Your task to perform on an android device: Search for seafood restaurants on Google Maps Image 0: 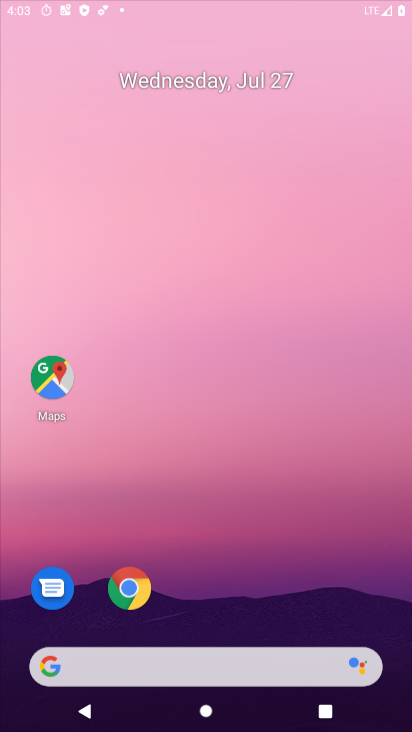
Step 0: press home button
Your task to perform on an android device: Search for seafood restaurants on Google Maps Image 1: 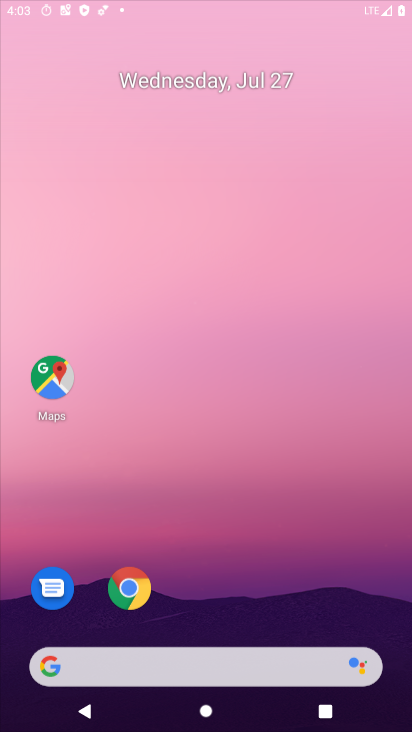
Step 1: click (268, 620)
Your task to perform on an android device: Search for seafood restaurants on Google Maps Image 2: 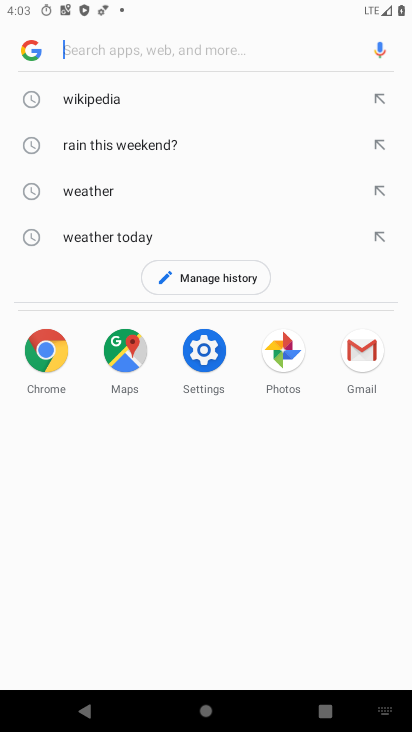
Step 2: press home button
Your task to perform on an android device: Search for seafood restaurants on Google Maps Image 3: 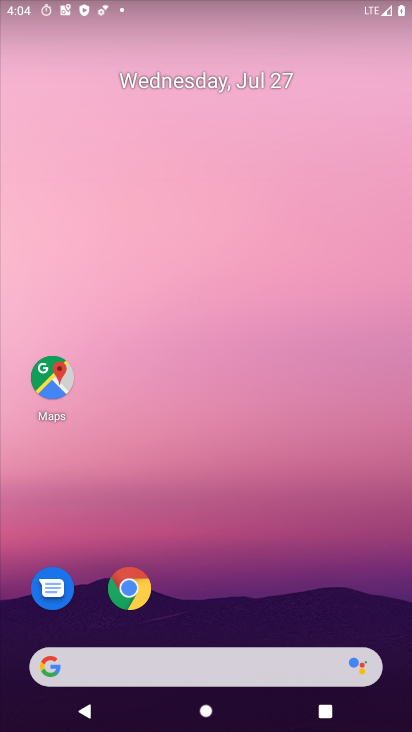
Step 3: drag from (271, 611) to (174, 94)
Your task to perform on an android device: Search for seafood restaurants on Google Maps Image 4: 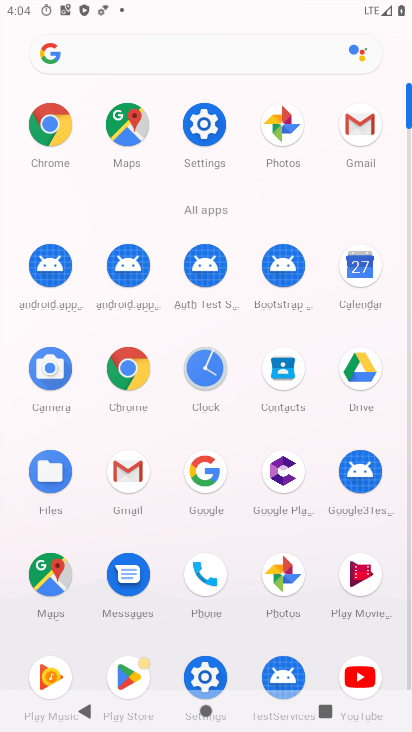
Step 4: click (124, 126)
Your task to perform on an android device: Search for seafood restaurants on Google Maps Image 5: 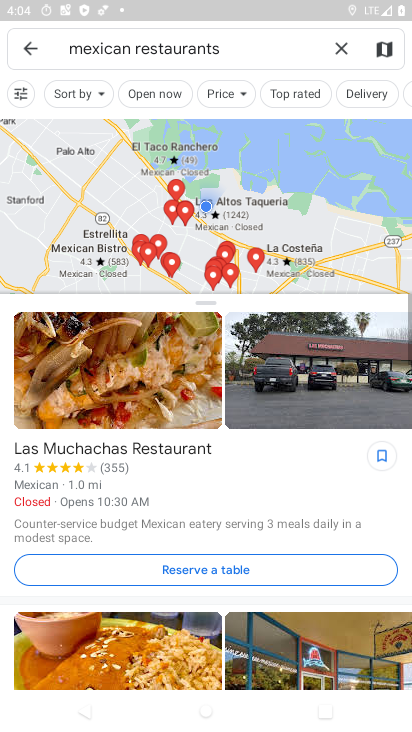
Step 5: click (32, 49)
Your task to perform on an android device: Search for seafood restaurants on Google Maps Image 6: 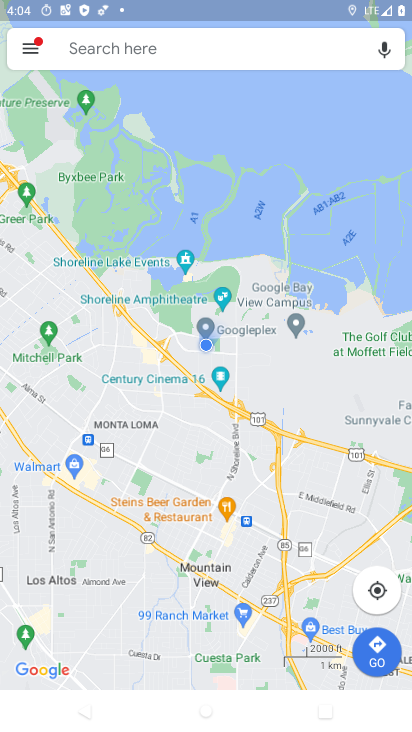
Step 6: click (97, 48)
Your task to perform on an android device: Search for seafood restaurants on Google Maps Image 7: 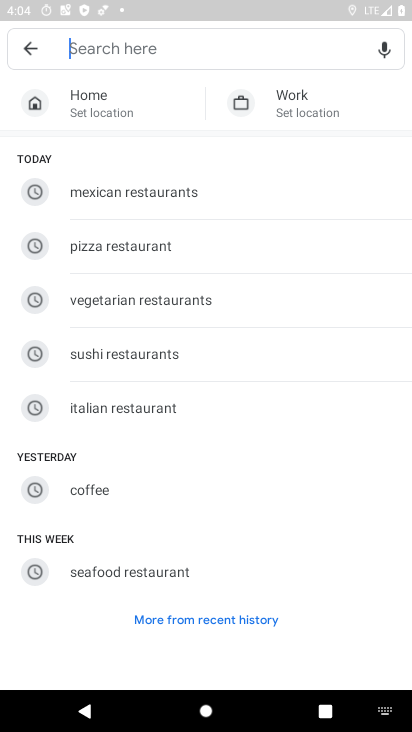
Step 7: click (134, 573)
Your task to perform on an android device: Search for seafood restaurants on Google Maps Image 8: 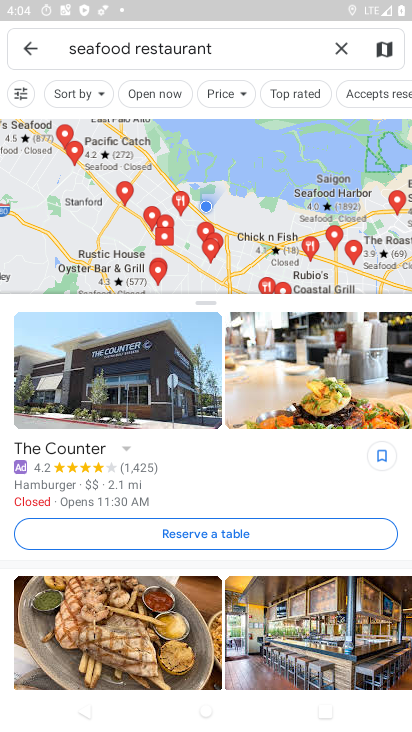
Step 8: task complete